Your task to perform on an android device: open app "Facebook Lite" Image 0: 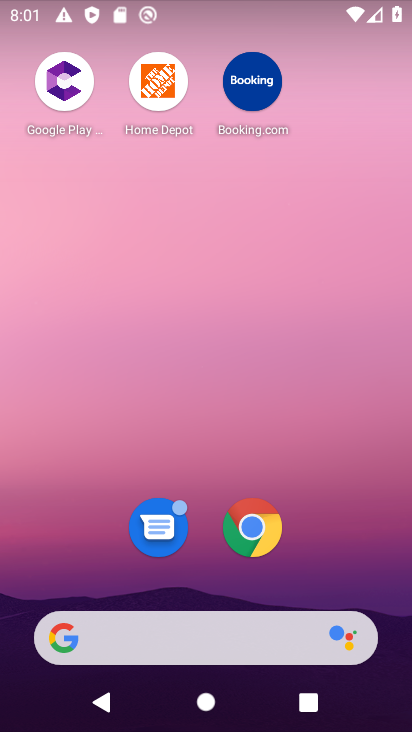
Step 0: drag from (168, 558) to (192, 3)
Your task to perform on an android device: open app "Facebook Lite" Image 1: 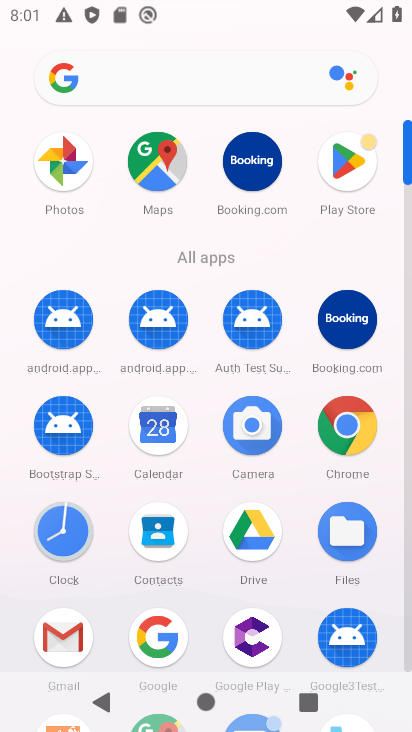
Step 1: click (329, 153)
Your task to perform on an android device: open app "Facebook Lite" Image 2: 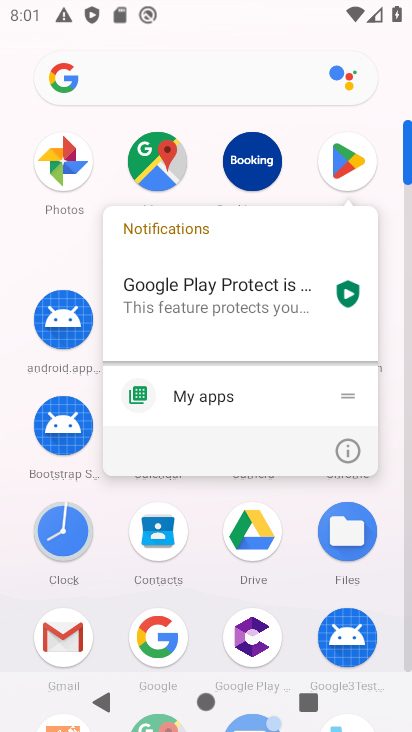
Step 2: click (361, 171)
Your task to perform on an android device: open app "Facebook Lite" Image 3: 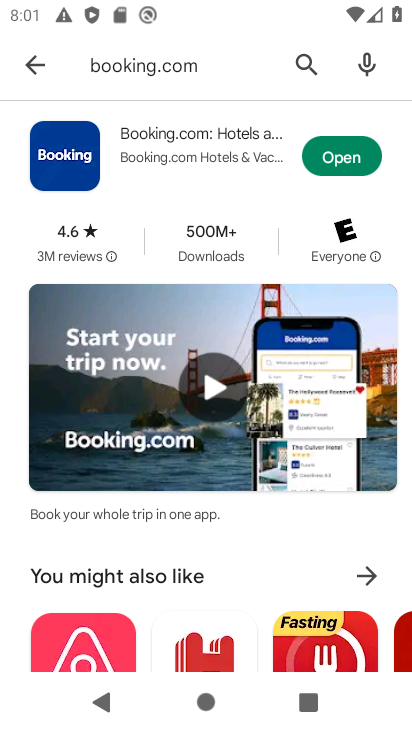
Step 3: click (313, 67)
Your task to perform on an android device: open app "Facebook Lite" Image 4: 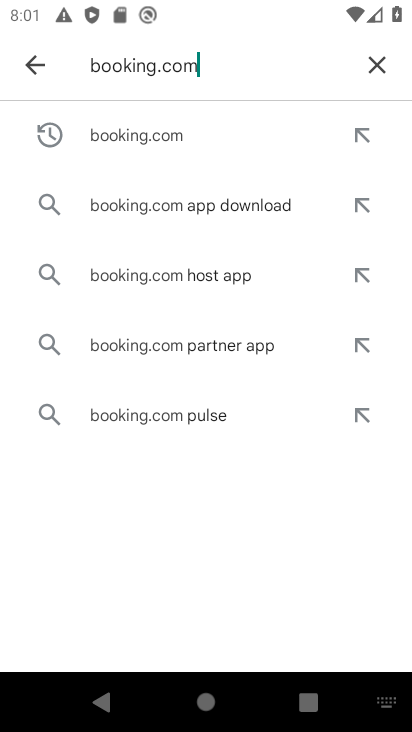
Step 4: click (381, 64)
Your task to perform on an android device: open app "Facebook Lite" Image 5: 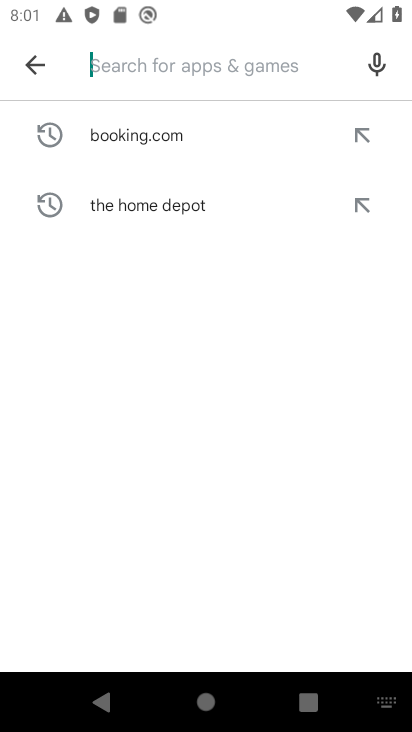
Step 5: click (214, 61)
Your task to perform on an android device: open app "Facebook Lite" Image 6: 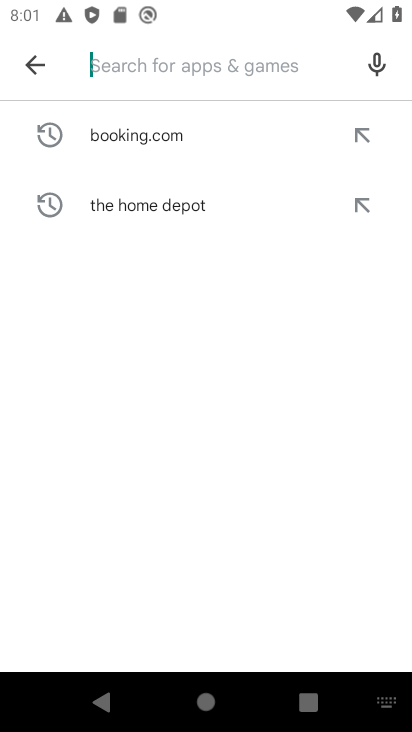
Step 6: type "facebook lite"
Your task to perform on an android device: open app "Facebook Lite" Image 7: 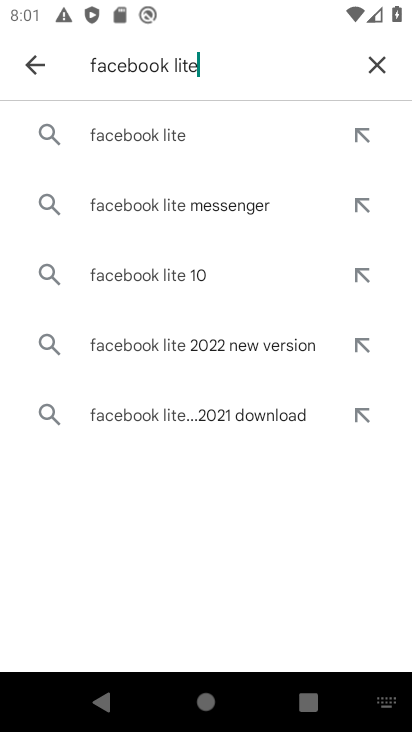
Step 7: click (99, 136)
Your task to perform on an android device: open app "Facebook Lite" Image 8: 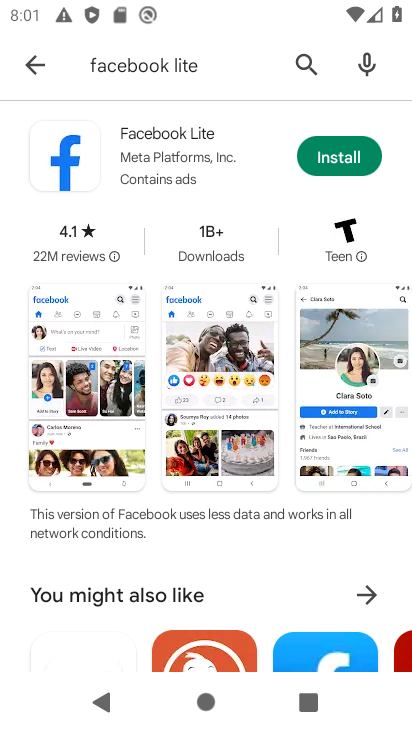
Step 8: click (348, 158)
Your task to perform on an android device: open app "Facebook Lite" Image 9: 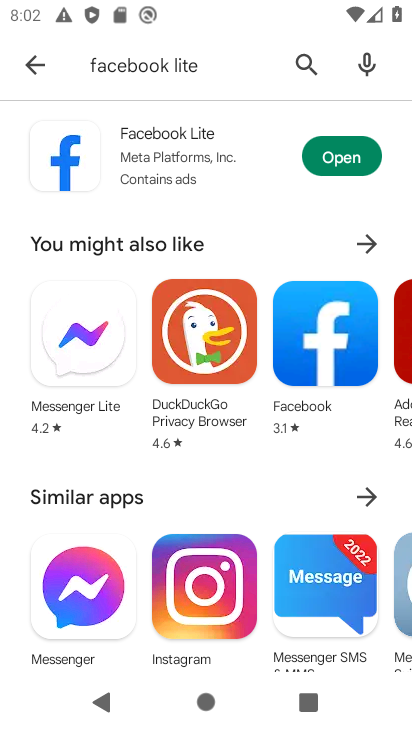
Step 9: click (348, 158)
Your task to perform on an android device: open app "Facebook Lite" Image 10: 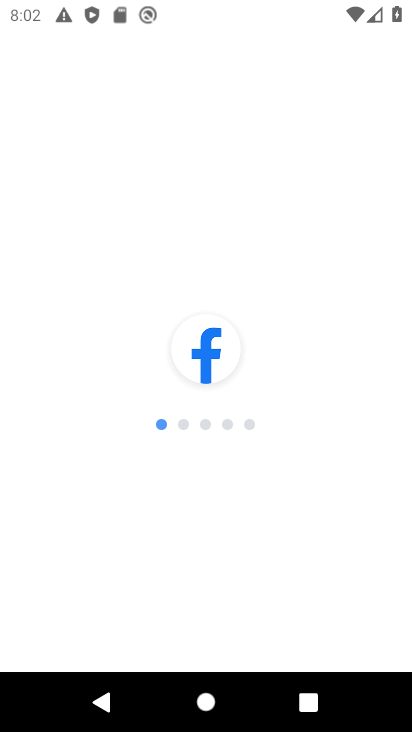
Step 10: task complete